Your task to perform on an android device: turn on sleep mode Image 0: 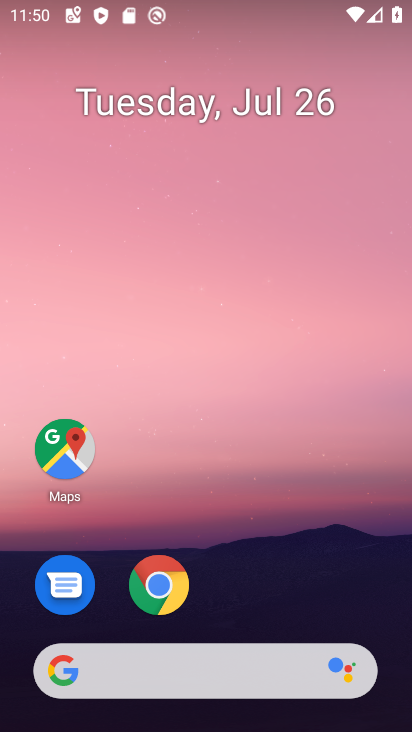
Step 0: drag from (282, 519) to (298, 288)
Your task to perform on an android device: turn on sleep mode Image 1: 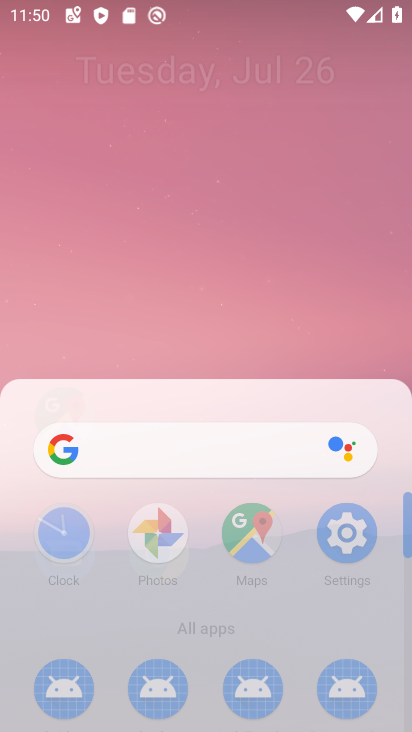
Step 1: click (322, 36)
Your task to perform on an android device: turn on sleep mode Image 2: 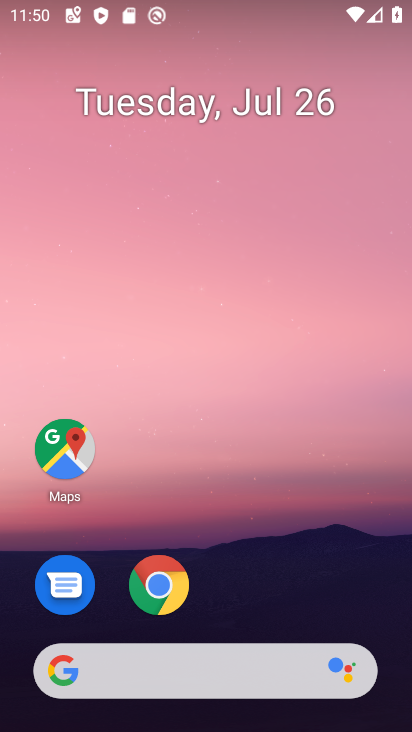
Step 2: drag from (223, 582) to (270, 34)
Your task to perform on an android device: turn on sleep mode Image 3: 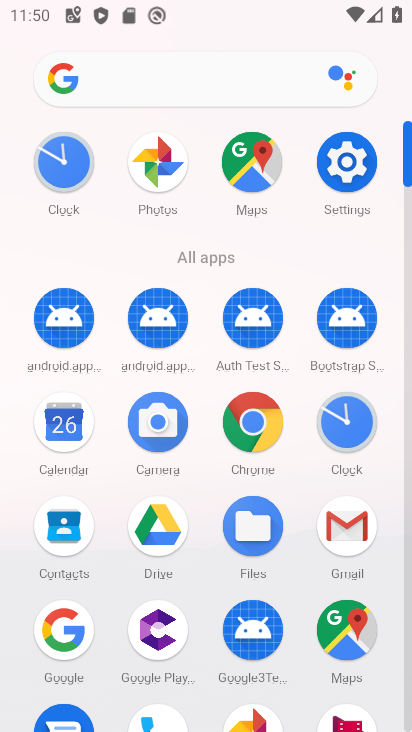
Step 3: click (349, 144)
Your task to perform on an android device: turn on sleep mode Image 4: 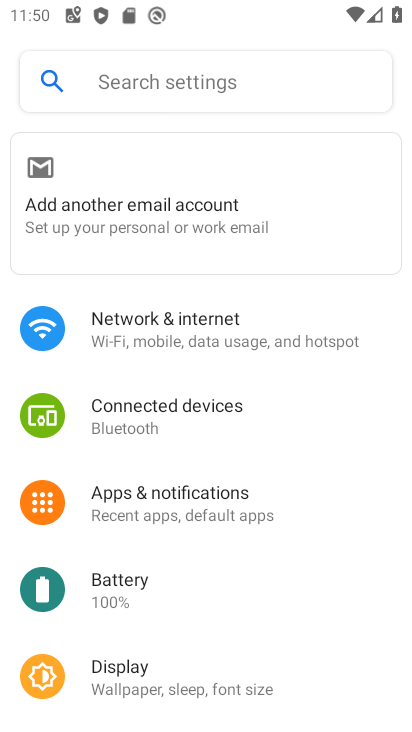
Step 4: click (117, 679)
Your task to perform on an android device: turn on sleep mode Image 5: 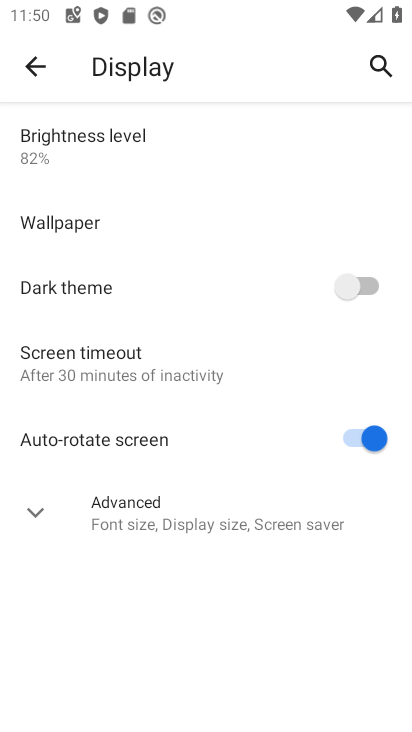
Step 5: click (34, 508)
Your task to perform on an android device: turn on sleep mode Image 6: 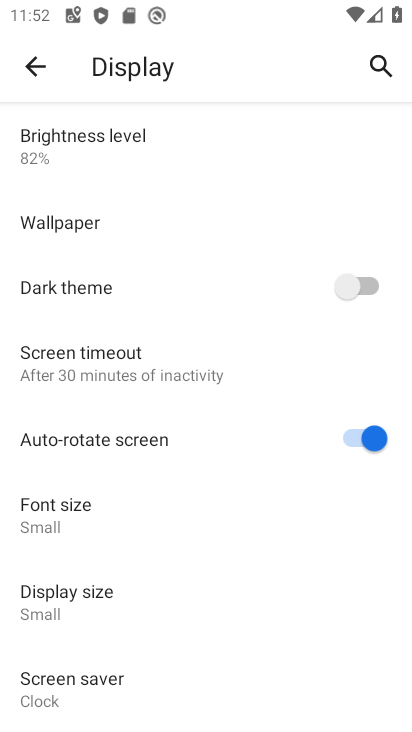
Step 6: task complete